Your task to perform on an android device: find snoozed emails in the gmail app Image 0: 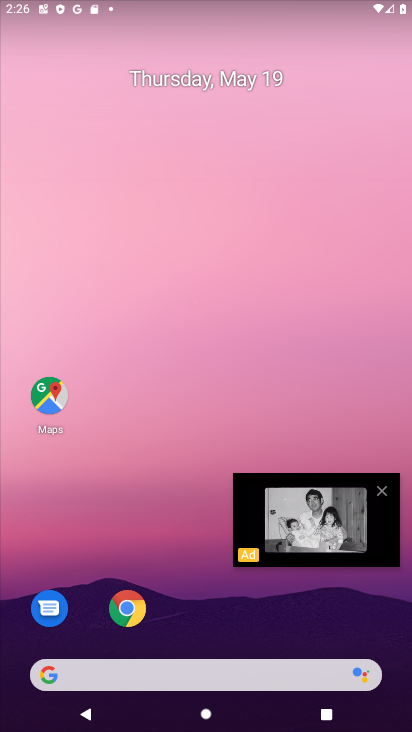
Step 0: click (382, 491)
Your task to perform on an android device: find snoozed emails in the gmail app Image 1: 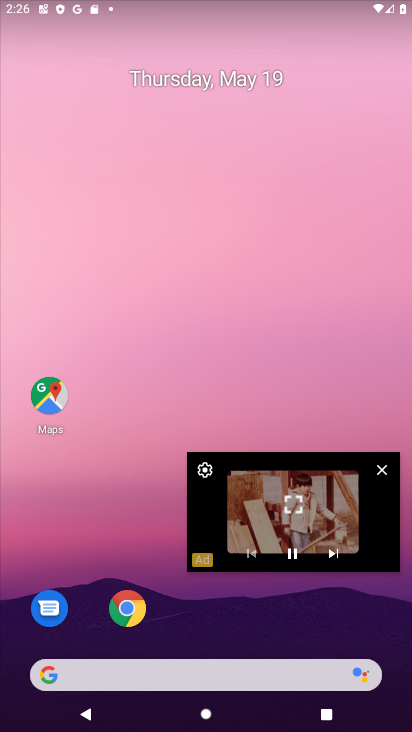
Step 1: click (381, 472)
Your task to perform on an android device: find snoozed emails in the gmail app Image 2: 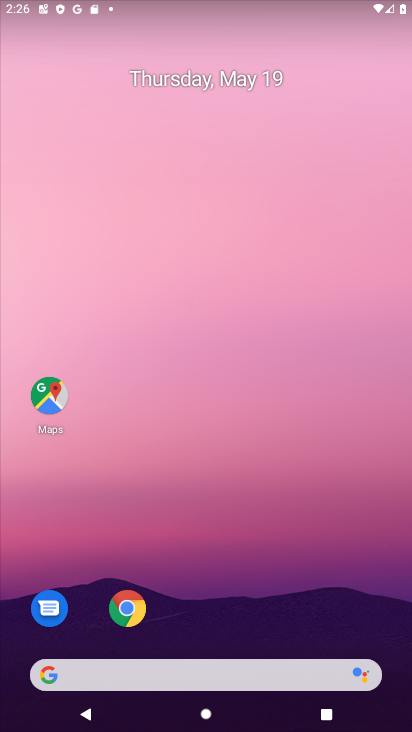
Step 2: drag from (257, 585) to (194, 5)
Your task to perform on an android device: find snoozed emails in the gmail app Image 3: 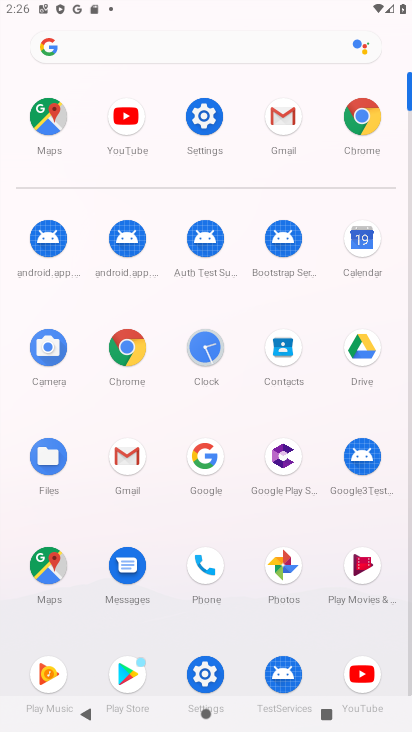
Step 3: click (275, 119)
Your task to perform on an android device: find snoozed emails in the gmail app Image 4: 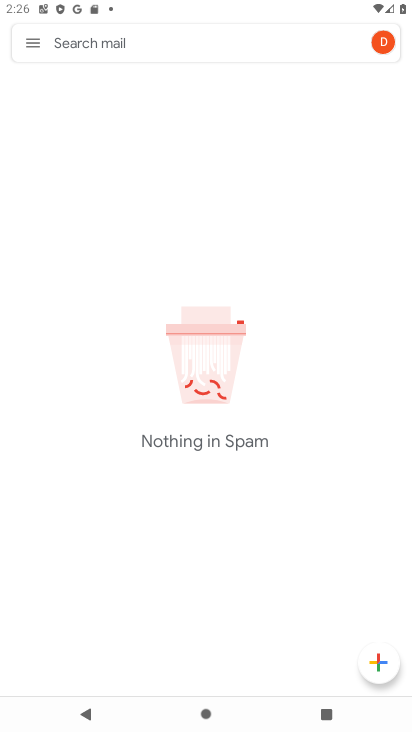
Step 4: click (26, 41)
Your task to perform on an android device: find snoozed emails in the gmail app Image 5: 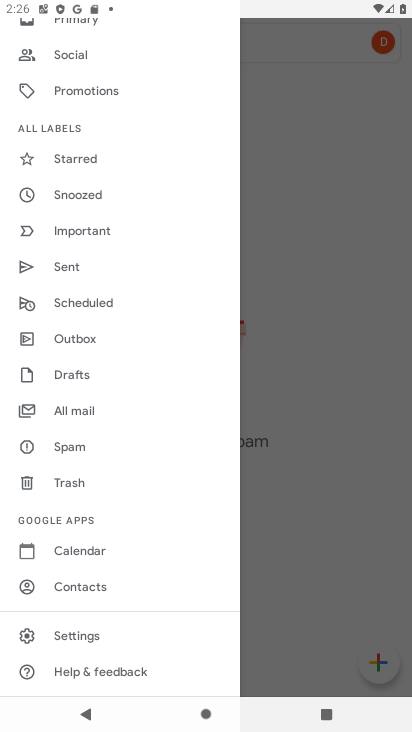
Step 5: click (130, 189)
Your task to perform on an android device: find snoozed emails in the gmail app Image 6: 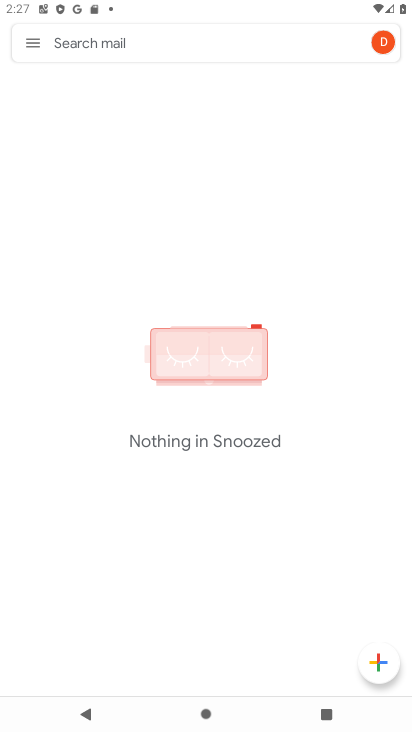
Step 6: task complete